Your task to perform on an android device: Search for Mexican restaurants on Maps Image 0: 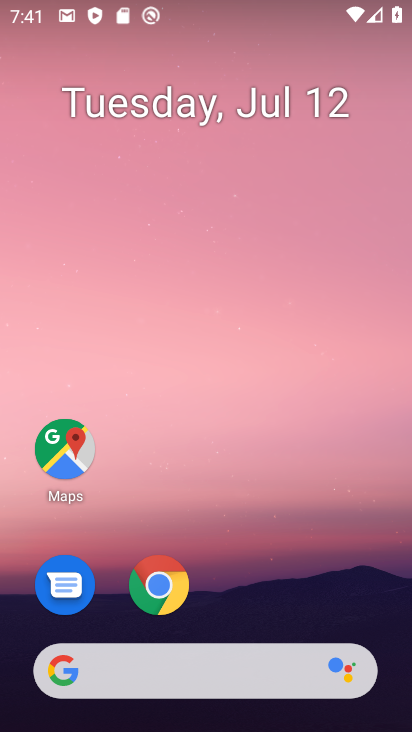
Step 0: click (62, 443)
Your task to perform on an android device: Search for Mexican restaurants on Maps Image 1: 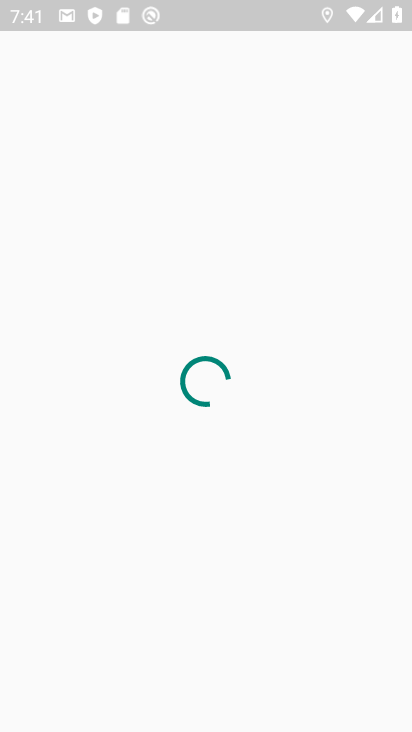
Step 1: click (174, 71)
Your task to perform on an android device: Search for Mexican restaurants on Maps Image 2: 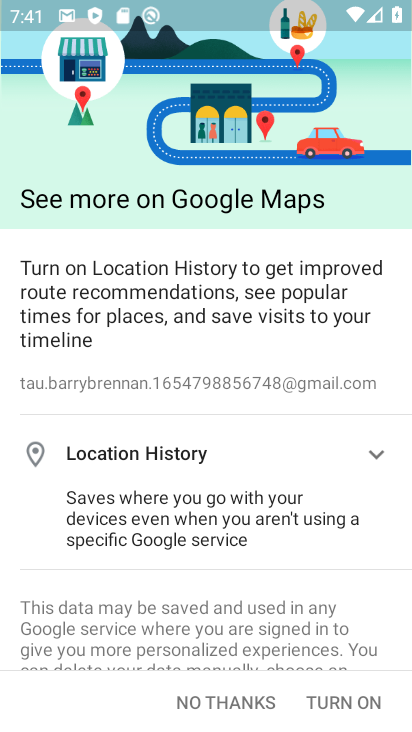
Step 2: click (340, 697)
Your task to perform on an android device: Search for Mexican restaurants on Maps Image 3: 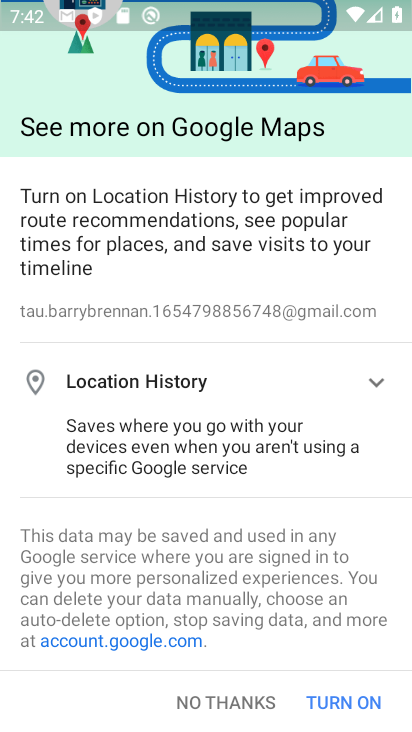
Step 3: click (340, 697)
Your task to perform on an android device: Search for Mexican restaurants on Maps Image 4: 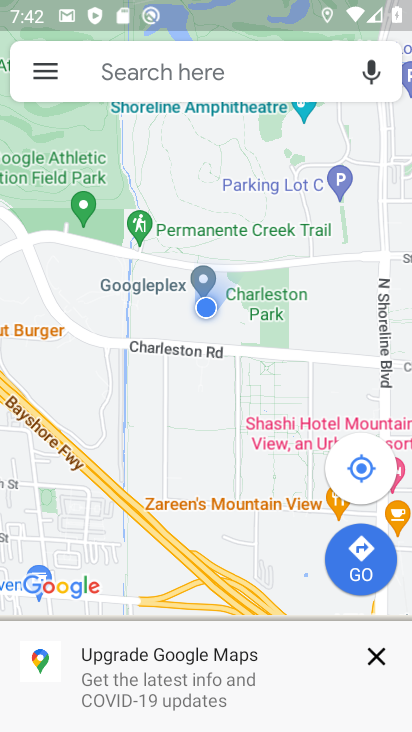
Step 4: click (170, 55)
Your task to perform on an android device: Search for Mexican restaurants on Maps Image 5: 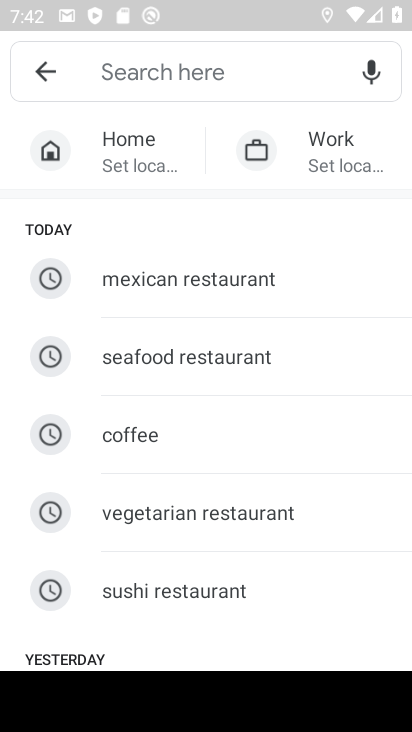
Step 5: click (196, 269)
Your task to perform on an android device: Search for Mexican restaurants on Maps Image 6: 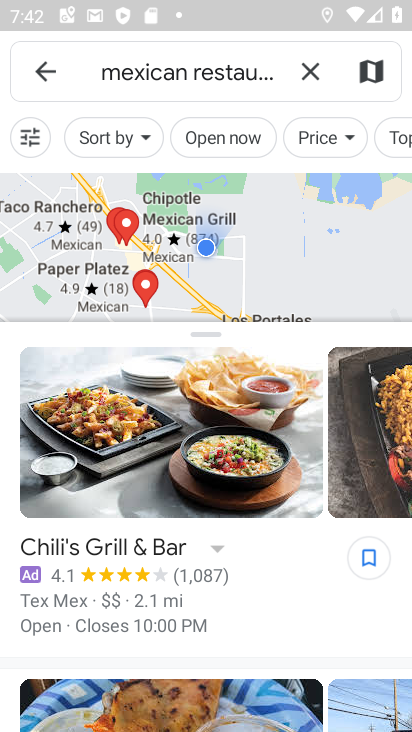
Step 6: task complete